Your task to perform on an android device: toggle pop-ups in chrome Image 0: 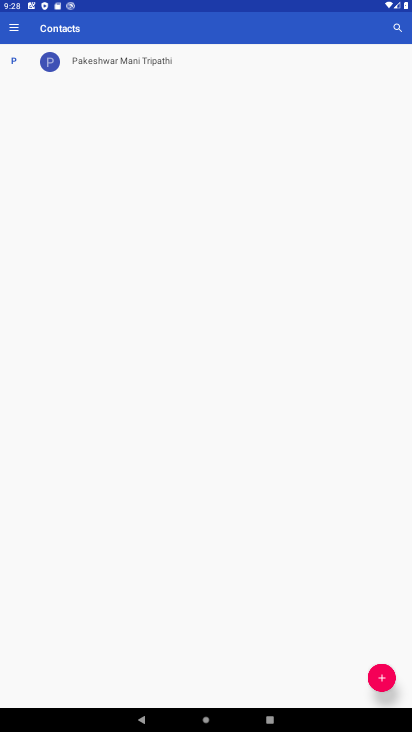
Step 0: press home button
Your task to perform on an android device: toggle pop-ups in chrome Image 1: 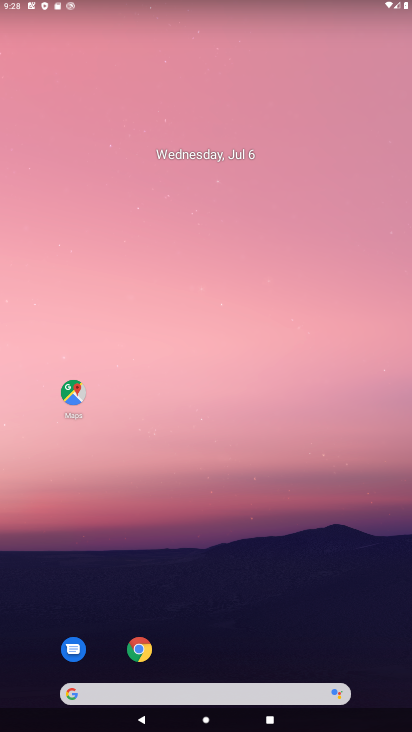
Step 1: click (140, 650)
Your task to perform on an android device: toggle pop-ups in chrome Image 2: 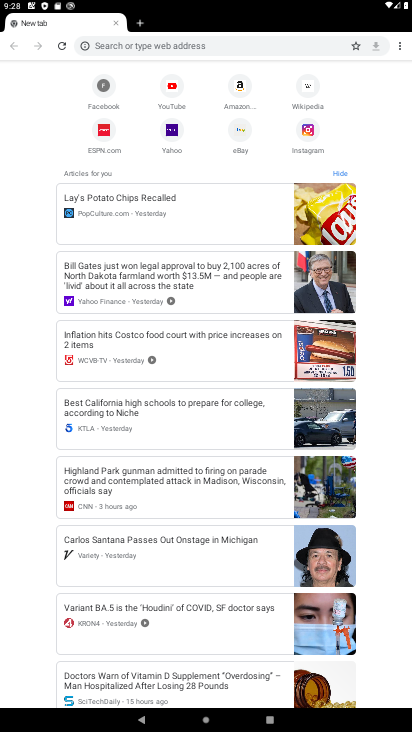
Step 2: click (403, 47)
Your task to perform on an android device: toggle pop-ups in chrome Image 3: 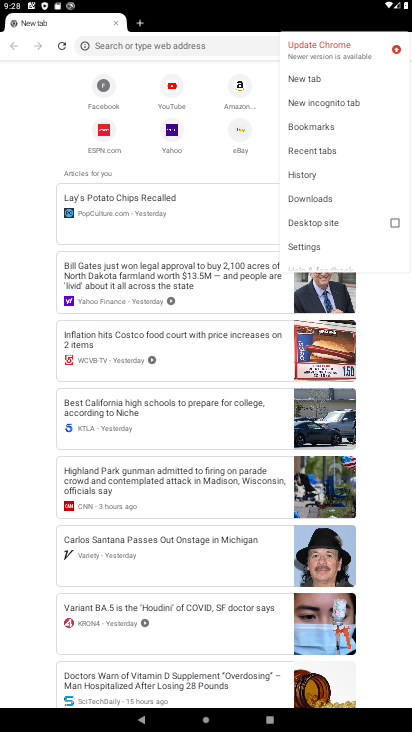
Step 3: click (310, 246)
Your task to perform on an android device: toggle pop-ups in chrome Image 4: 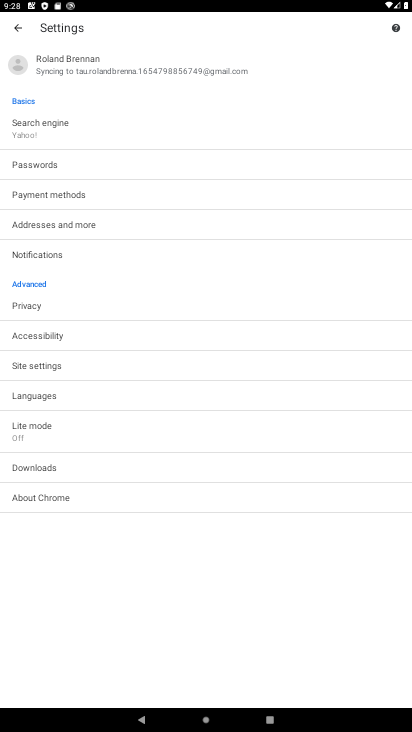
Step 4: click (53, 364)
Your task to perform on an android device: toggle pop-ups in chrome Image 5: 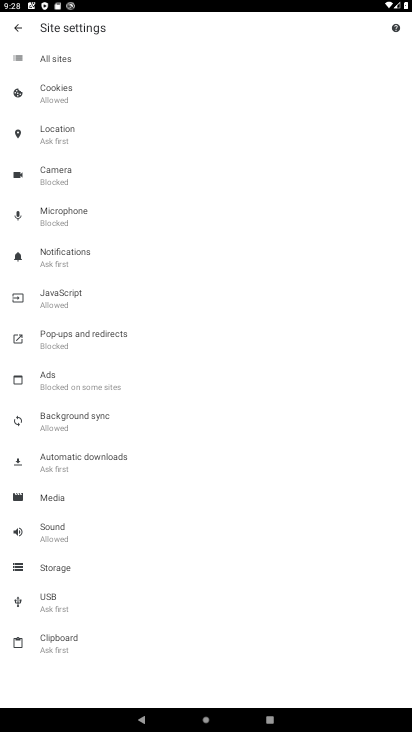
Step 5: click (81, 338)
Your task to perform on an android device: toggle pop-ups in chrome Image 6: 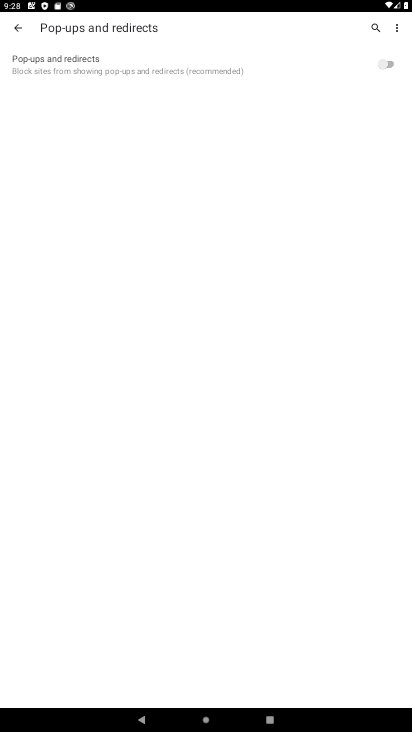
Step 6: click (385, 65)
Your task to perform on an android device: toggle pop-ups in chrome Image 7: 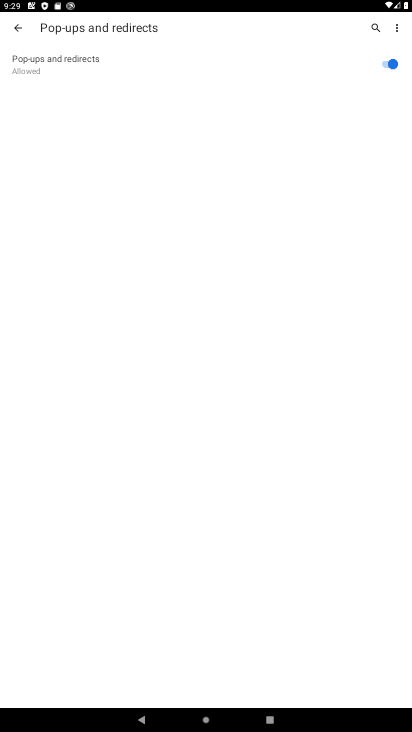
Step 7: task complete